Your task to perform on an android device: Play the last video I watched on Youtube Image 0: 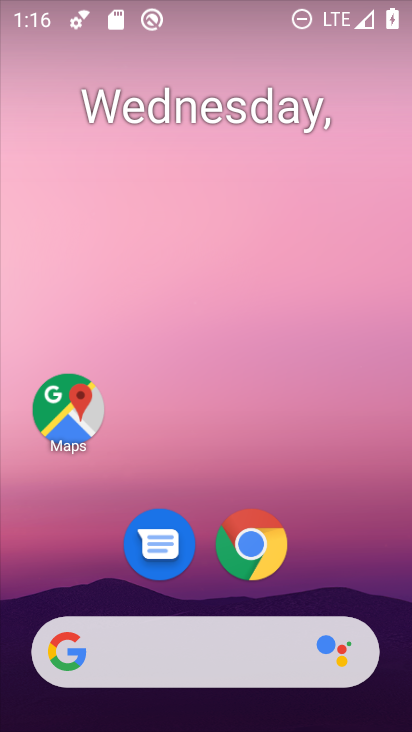
Step 0: drag from (301, 591) to (377, 128)
Your task to perform on an android device: Play the last video I watched on Youtube Image 1: 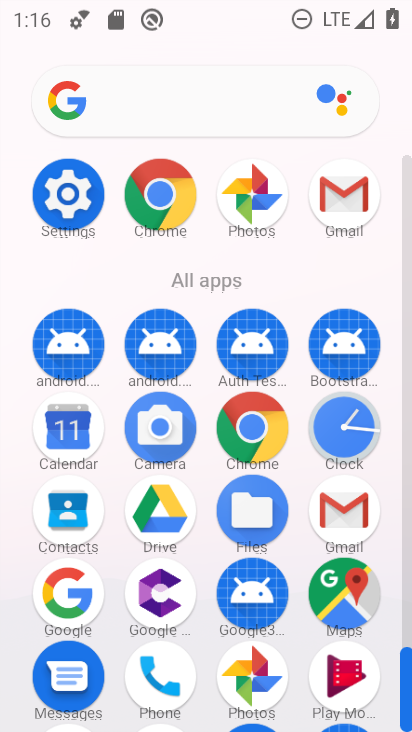
Step 1: drag from (200, 608) to (249, 307)
Your task to perform on an android device: Play the last video I watched on Youtube Image 2: 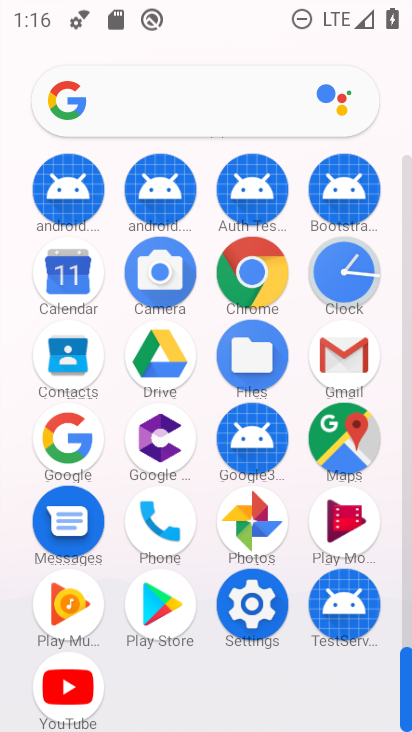
Step 2: click (63, 683)
Your task to perform on an android device: Play the last video I watched on Youtube Image 3: 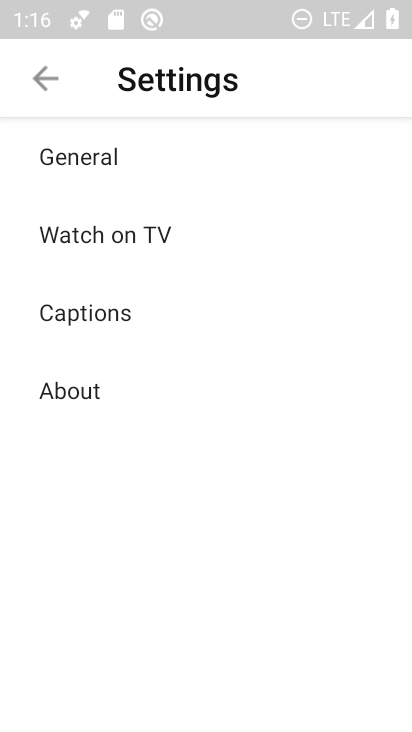
Step 3: click (51, 77)
Your task to perform on an android device: Play the last video I watched on Youtube Image 4: 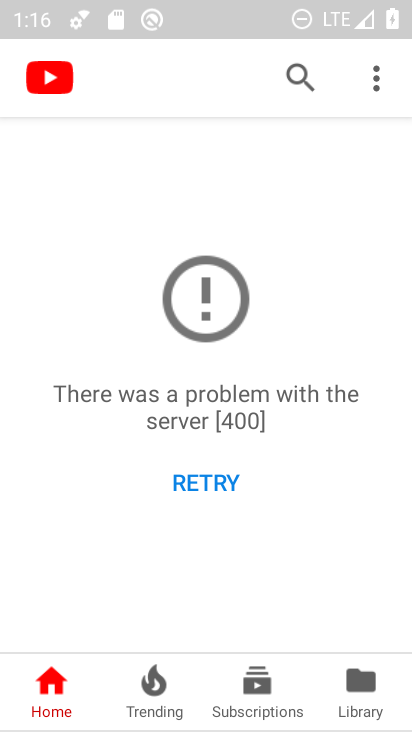
Step 4: click (386, 711)
Your task to perform on an android device: Play the last video I watched on Youtube Image 5: 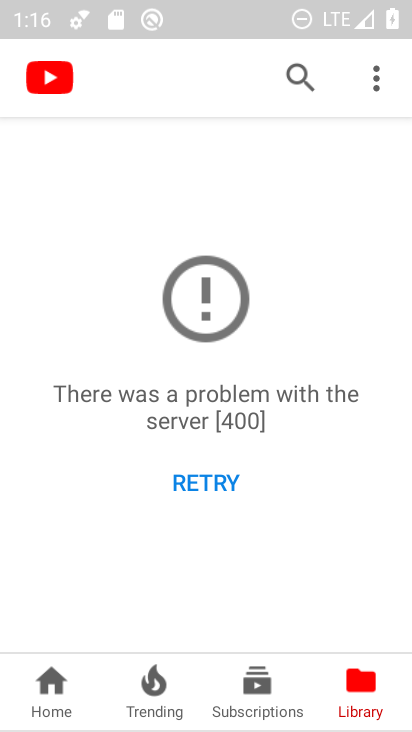
Step 5: click (203, 484)
Your task to perform on an android device: Play the last video I watched on Youtube Image 6: 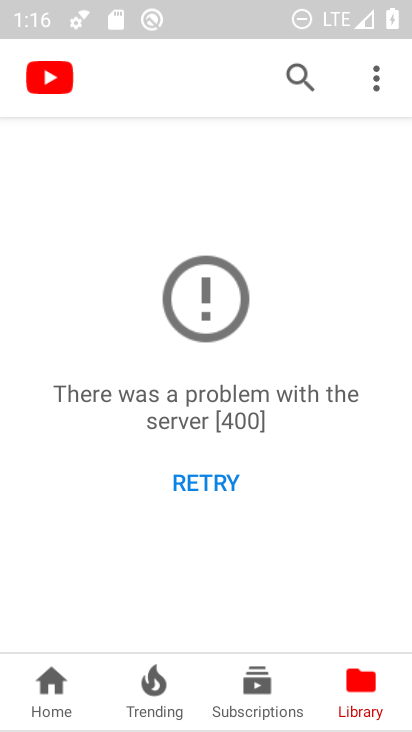
Step 6: click (203, 484)
Your task to perform on an android device: Play the last video I watched on Youtube Image 7: 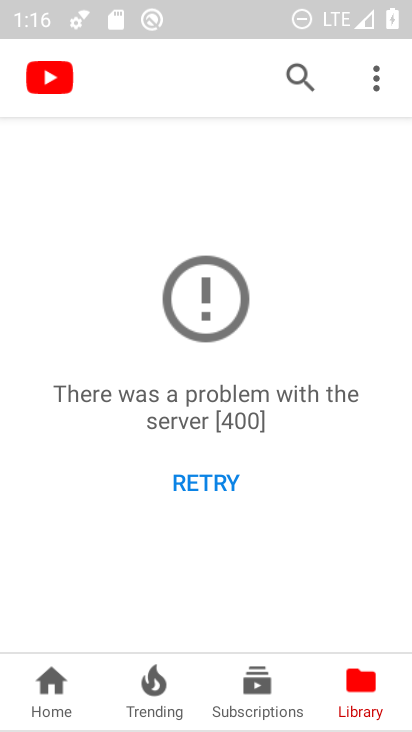
Step 7: task complete